Your task to perform on an android device: clear history in the chrome app Image 0: 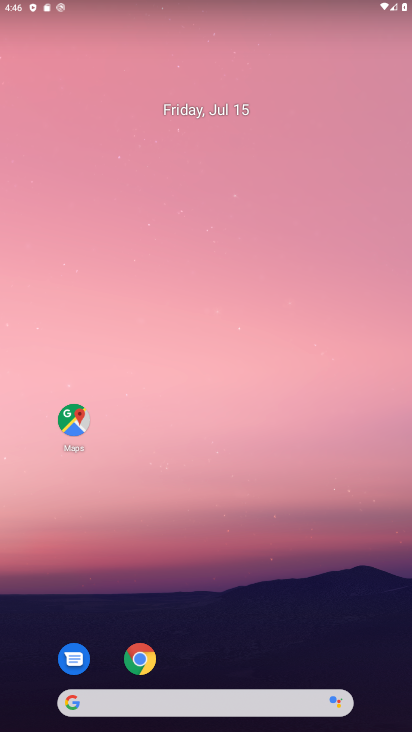
Step 0: drag from (254, 596) to (212, 52)
Your task to perform on an android device: clear history in the chrome app Image 1: 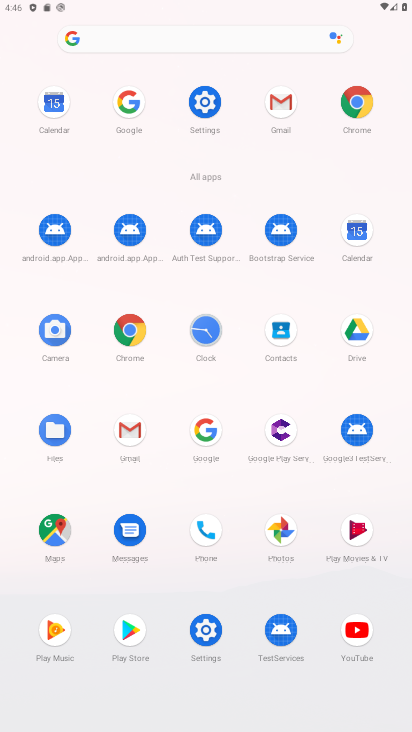
Step 1: click (357, 107)
Your task to perform on an android device: clear history in the chrome app Image 2: 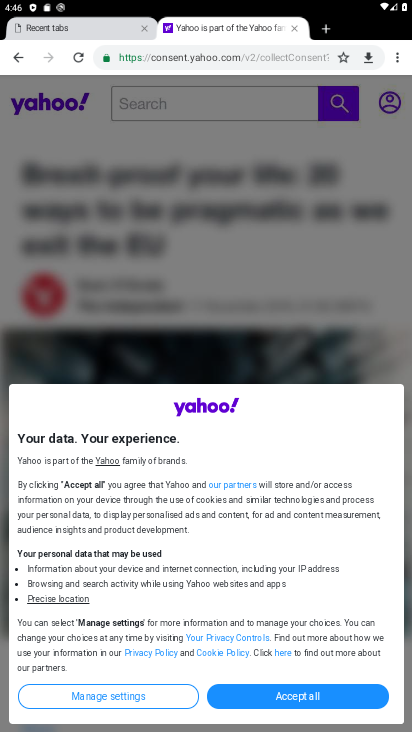
Step 2: drag from (404, 58) to (270, 177)
Your task to perform on an android device: clear history in the chrome app Image 3: 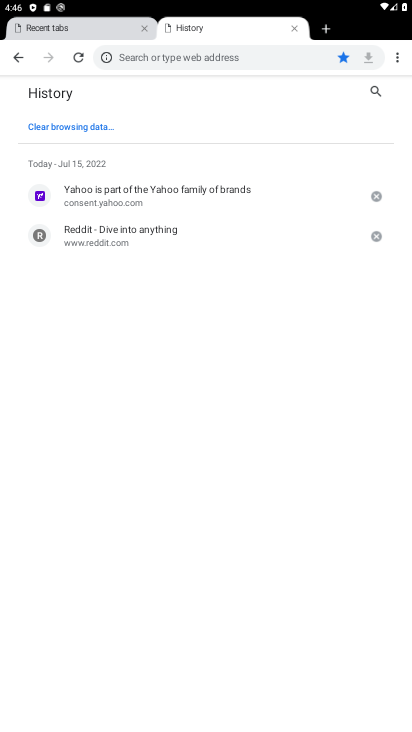
Step 3: click (49, 128)
Your task to perform on an android device: clear history in the chrome app Image 4: 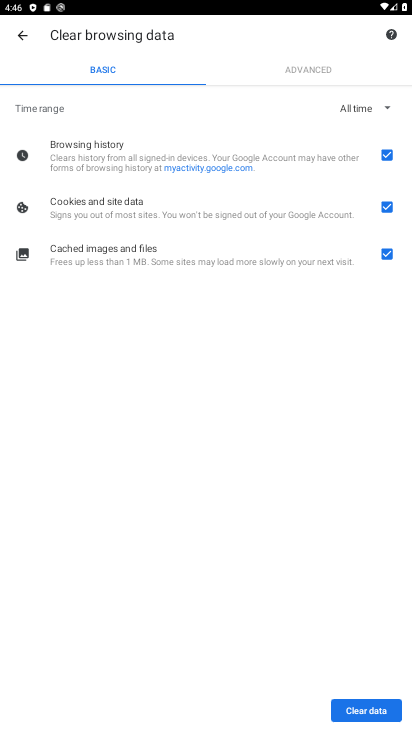
Step 4: click (370, 707)
Your task to perform on an android device: clear history in the chrome app Image 5: 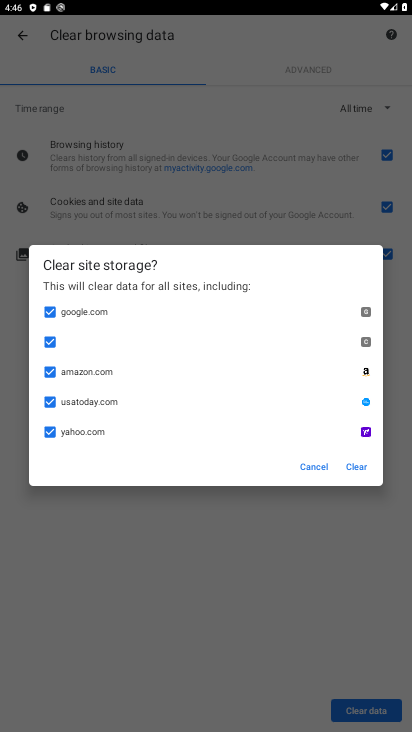
Step 5: click (351, 466)
Your task to perform on an android device: clear history in the chrome app Image 6: 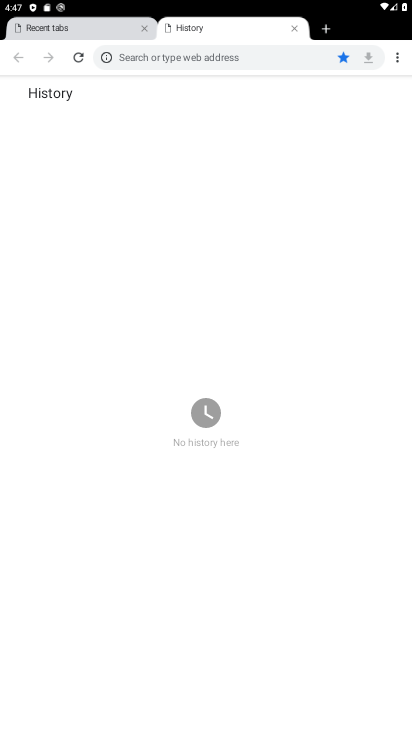
Step 6: task complete